Your task to perform on an android device: toggle wifi Image 0: 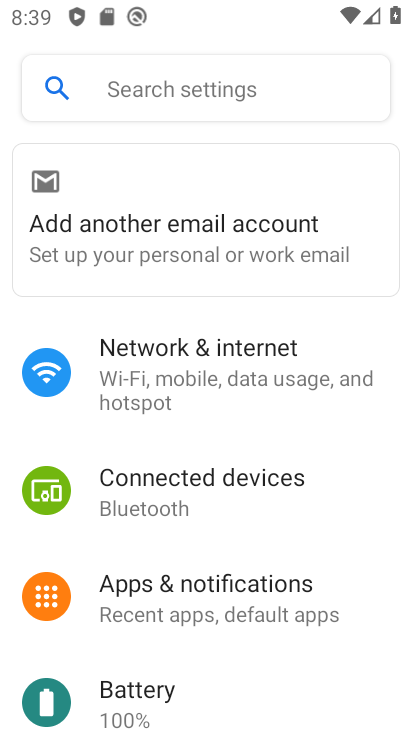
Step 0: press home button
Your task to perform on an android device: toggle wifi Image 1: 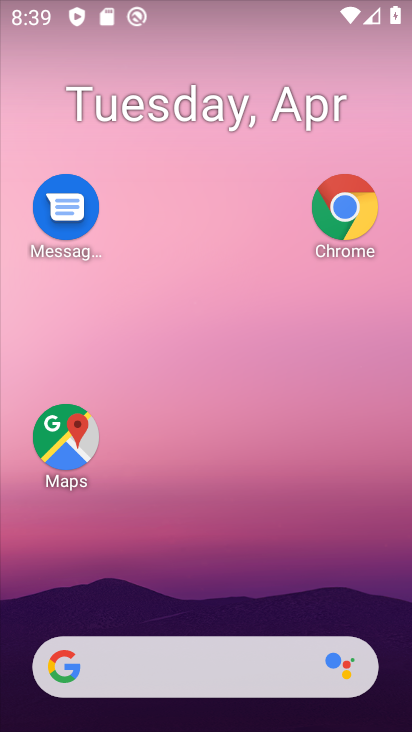
Step 1: drag from (192, 600) to (171, 0)
Your task to perform on an android device: toggle wifi Image 2: 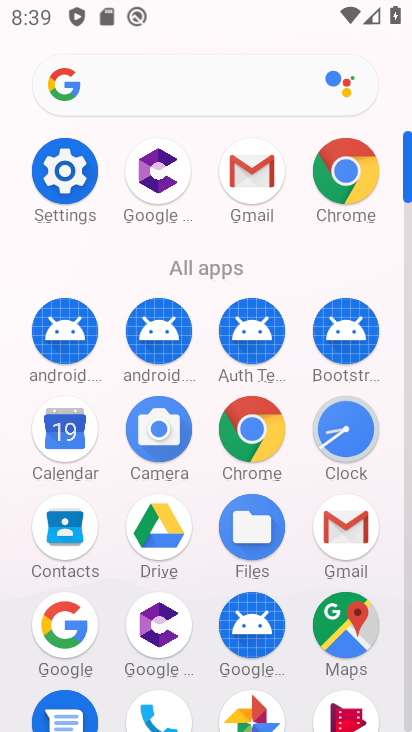
Step 2: click (67, 183)
Your task to perform on an android device: toggle wifi Image 3: 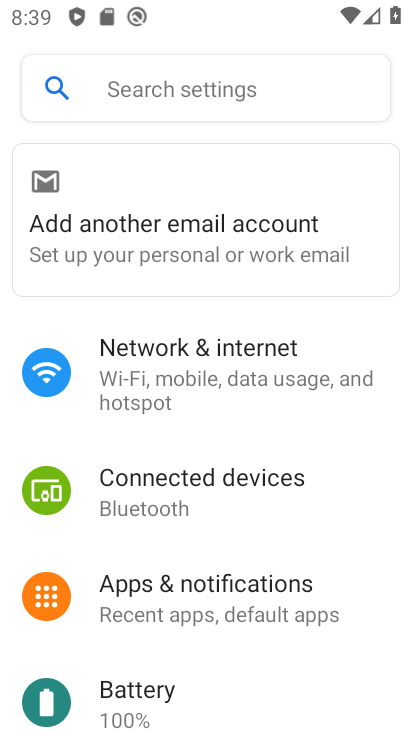
Step 3: click (145, 370)
Your task to perform on an android device: toggle wifi Image 4: 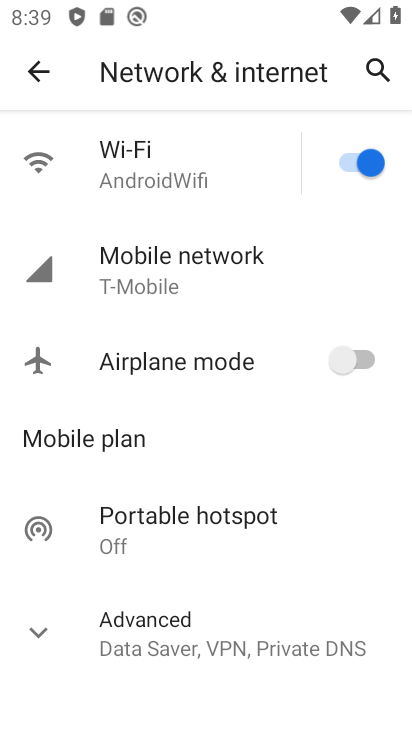
Step 4: click (156, 169)
Your task to perform on an android device: toggle wifi Image 5: 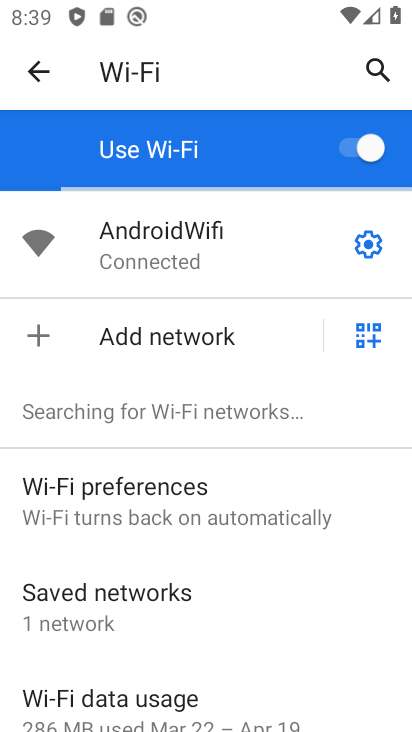
Step 5: click (343, 146)
Your task to perform on an android device: toggle wifi Image 6: 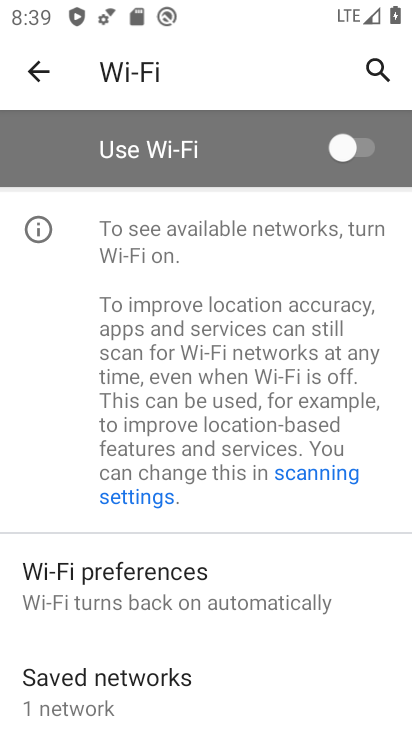
Step 6: task complete